Your task to perform on an android device: What's the weather today? Image 0: 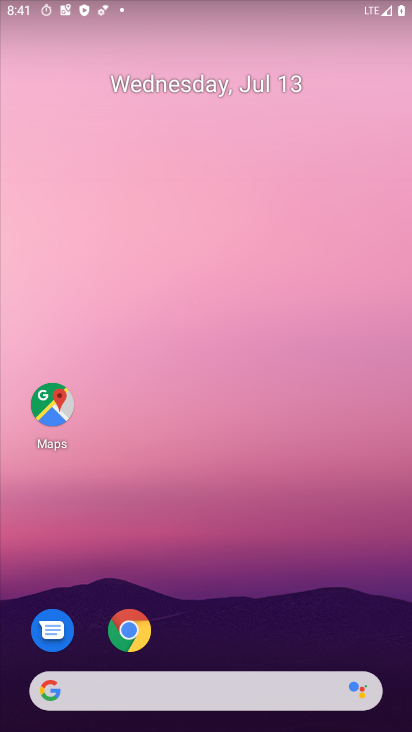
Step 0: click (291, 678)
Your task to perform on an android device: What's the weather today? Image 1: 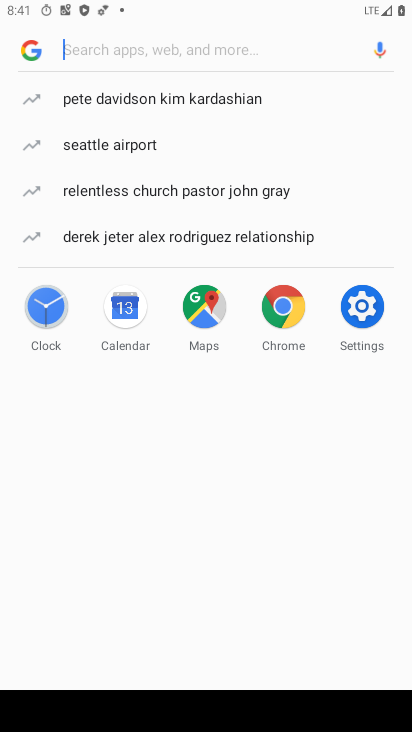
Step 1: type "weather"
Your task to perform on an android device: What's the weather today? Image 2: 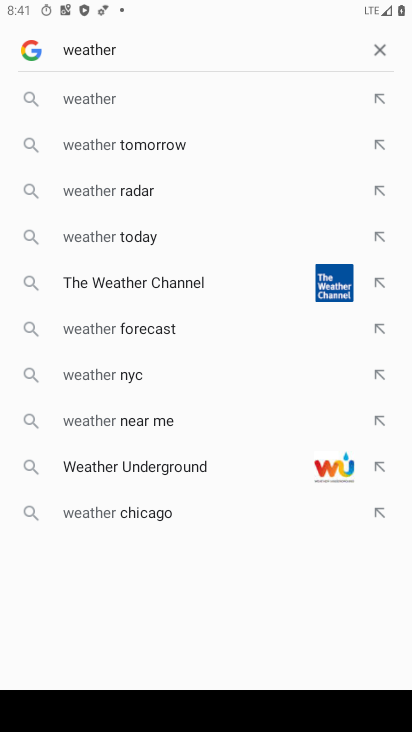
Step 2: click (163, 99)
Your task to perform on an android device: What's the weather today? Image 3: 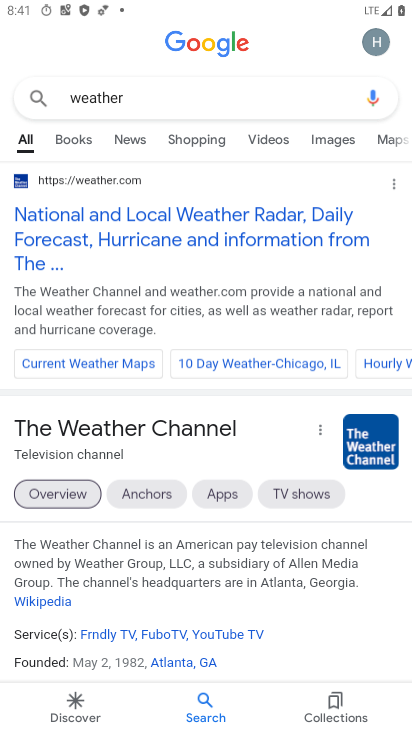
Step 3: task complete